Your task to perform on an android device: open wifi settings Image 0: 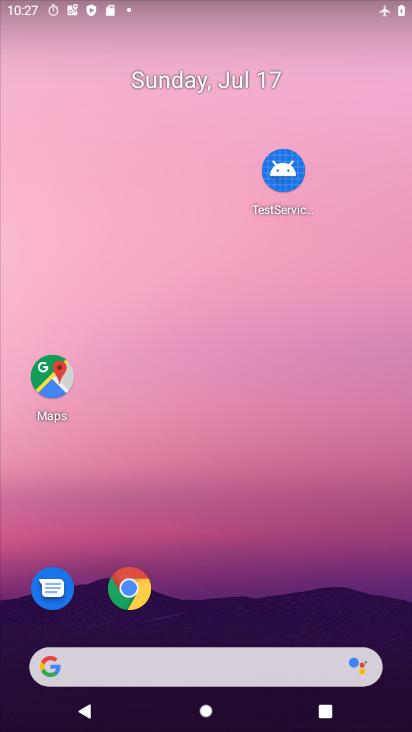
Step 0: drag from (193, 645) to (201, 85)
Your task to perform on an android device: open wifi settings Image 1: 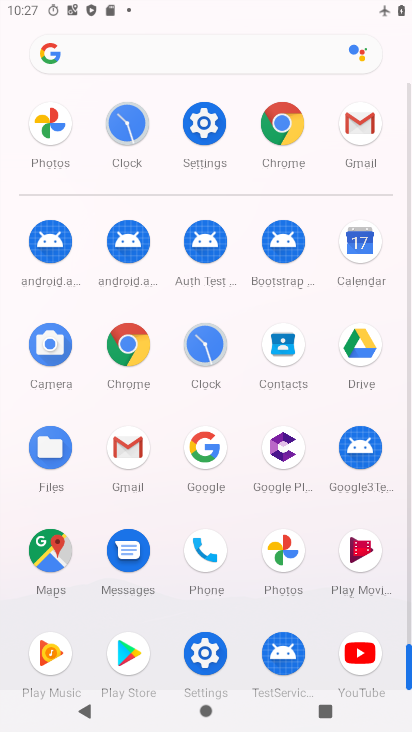
Step 1: click (194, 123)
Your task to perform on an android device: open wifi settings Image 2: 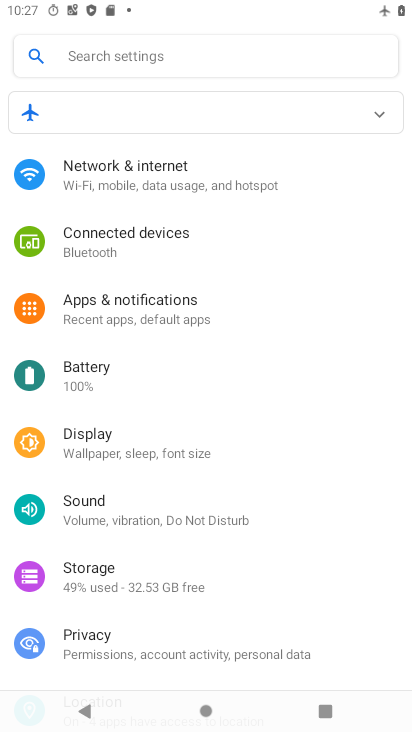
Step 2: click (170, 179)
Your task to perform on an android device: open wifi settings Image 3: 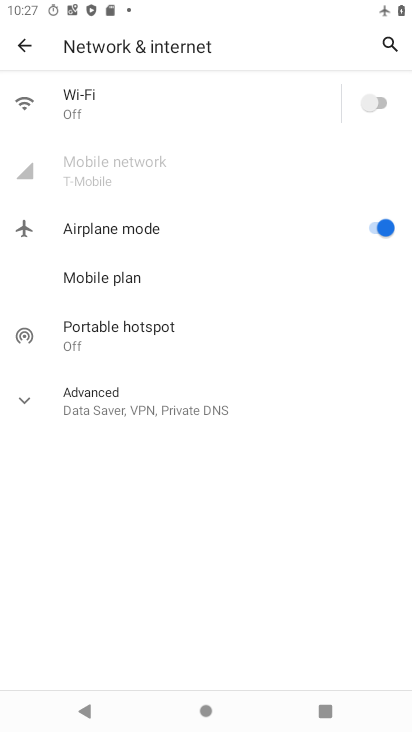
Step 3: click (163, 101)
Your task to perform on an android device: open wifi settings Image 4: 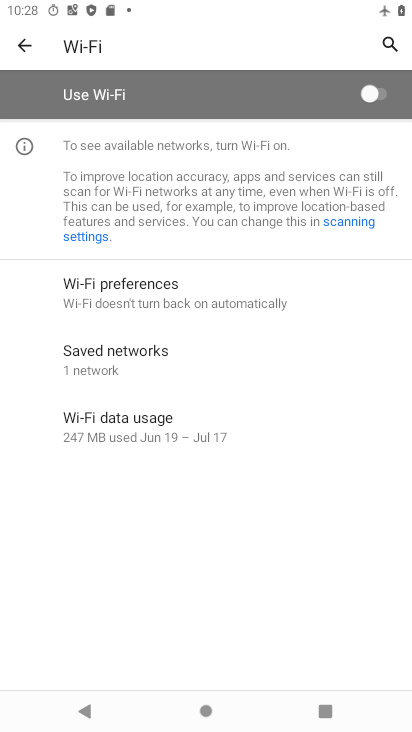
Step 4: task complete